Your task to perform on an android device: Go to notification settings Image 0: 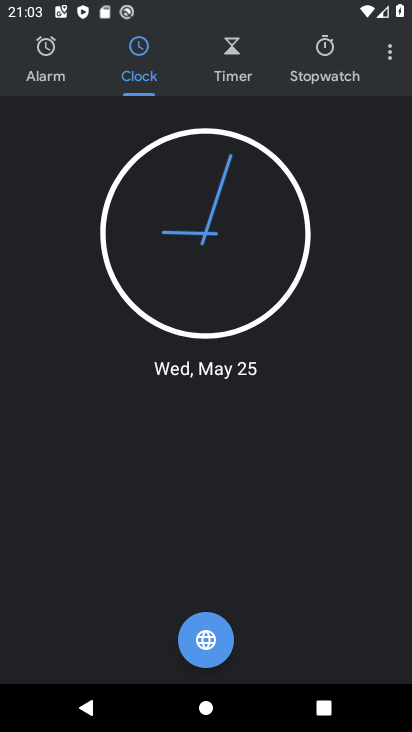
Step 0: press home button
Your task to perform on an android device: Go to notification settings Image 1: 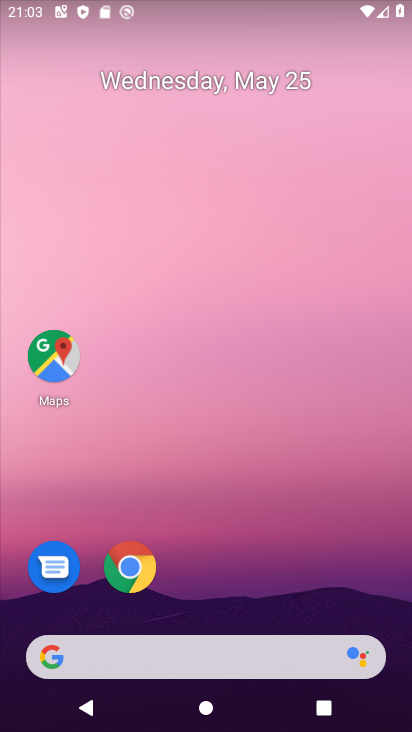
Step 1: drag from (262, 532) to (258, 77)
Your task to perform on an android device: Go to notification settings Image 2: 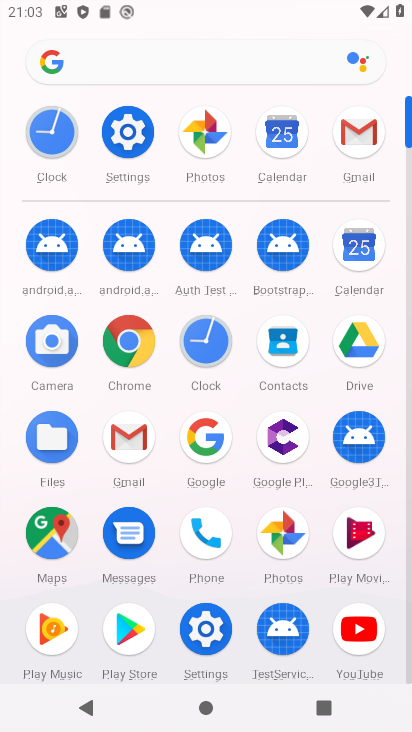
Step 2: click (127, 141)
Your task to perform on an android device: Go to notification settings Image 3: 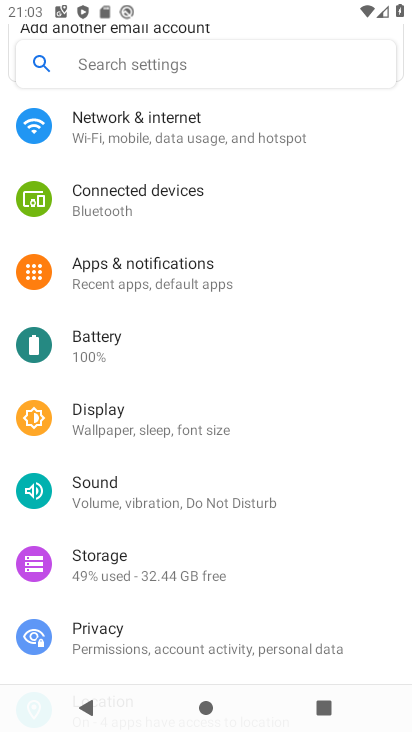
Step 3: click (125, 269)
Your task to perform on an android device: Go to notification settings Image 4: 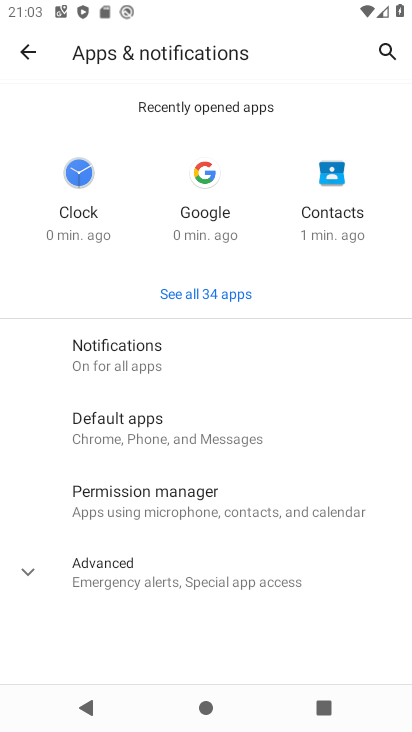
Step 4: click (131, 351)
Your task to perform on an android device: Go to notification settings Image 5: 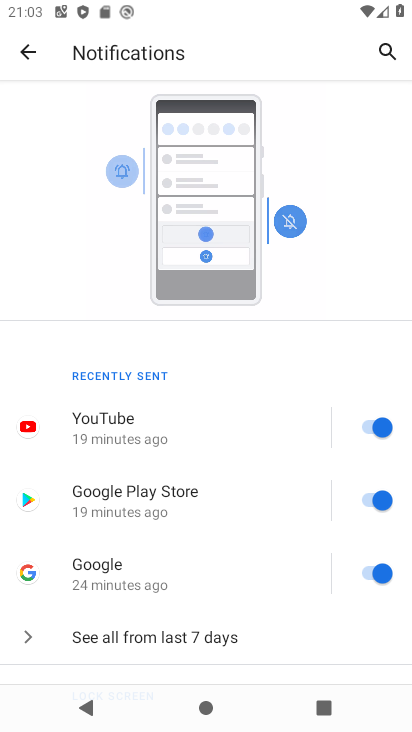
Step 5: task complete